Your task to perform on an android device: check the backup settings in the google photos Image 0: 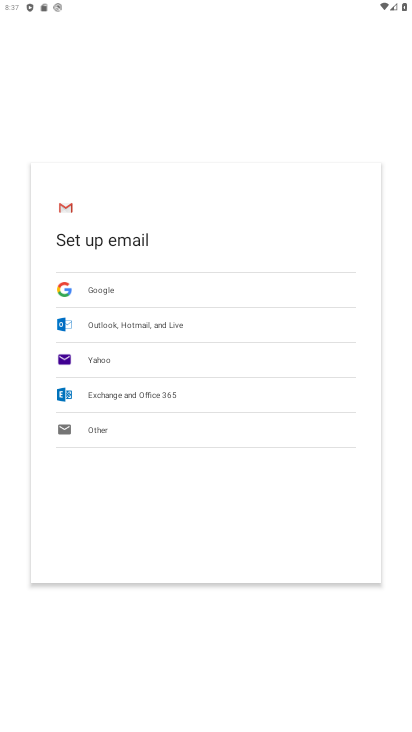
Step 0: press home button
Your task to perform on an android device: check the backup settings in the google photos Image 1: 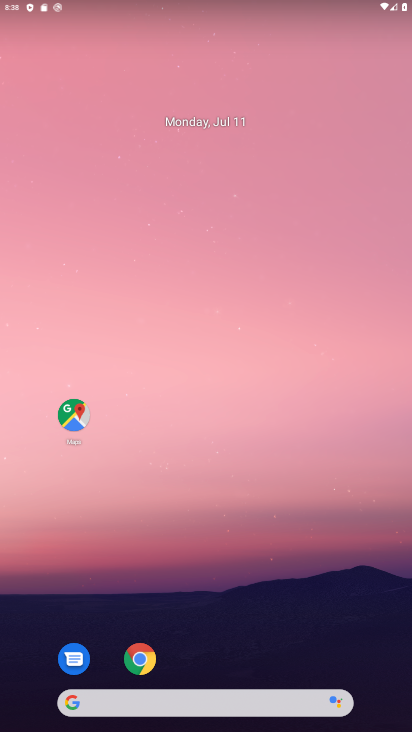
Step 1: drag from (19, 723) to (3, 634)
Your task to perform on an android device: check the backup settings in the google photos Image 2: 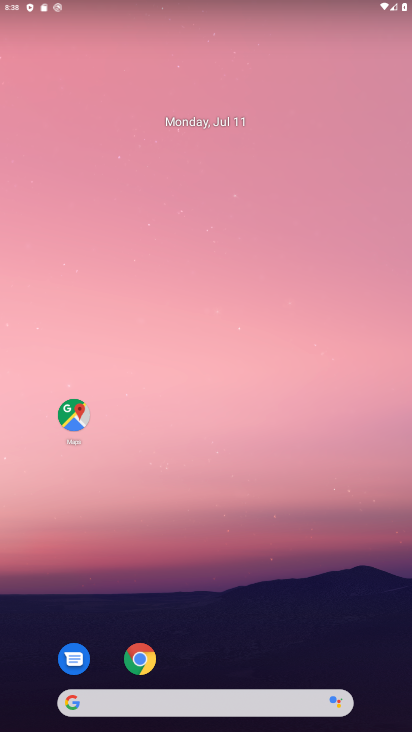
Step 2: drag from (9, 701) to (125, 258)
Your task to perform on an android device: check the backup settings in the google photos Image 3: 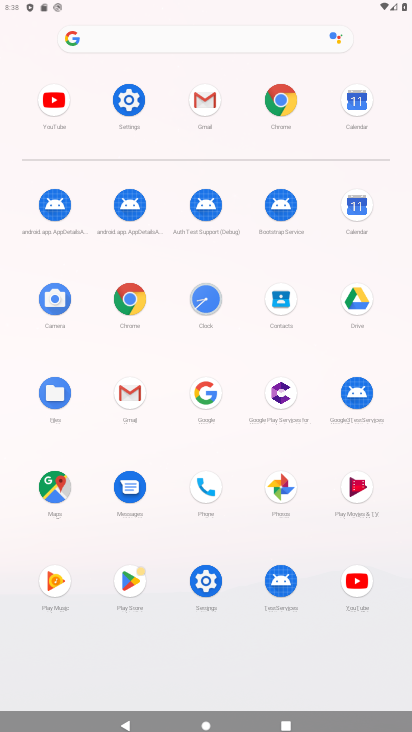
Step 3: click (270, 498)
Your task to perform on an android device: check the backup settings in the google photos Image 4: 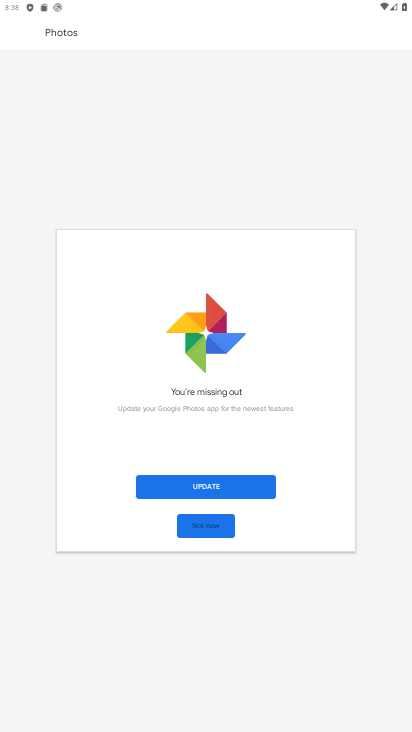
Step 4: click (182, 513)
Your task to perform on an android device: check the backup settings in the google photos Image 5: 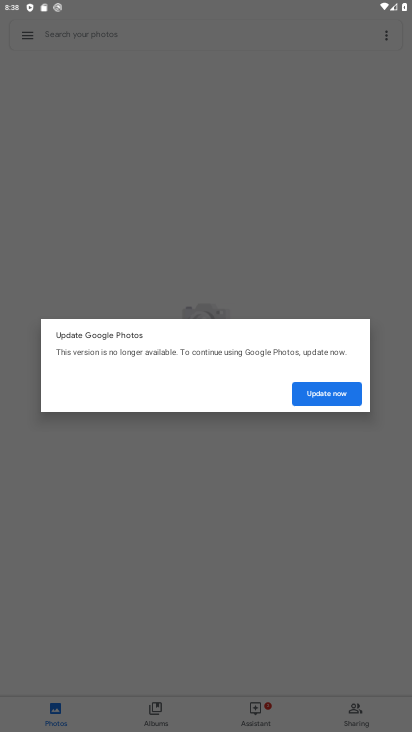
Step 5: click (312, 393)
Your task to perform on an android device: check the backup settings in the google photos Image 6: 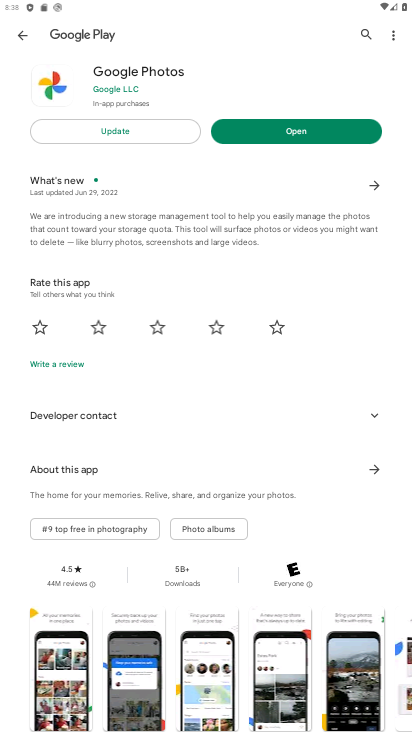
Step 6: click (292, 132)
Your task to perform on an android device: check the backup settings in the google photos Image 7: 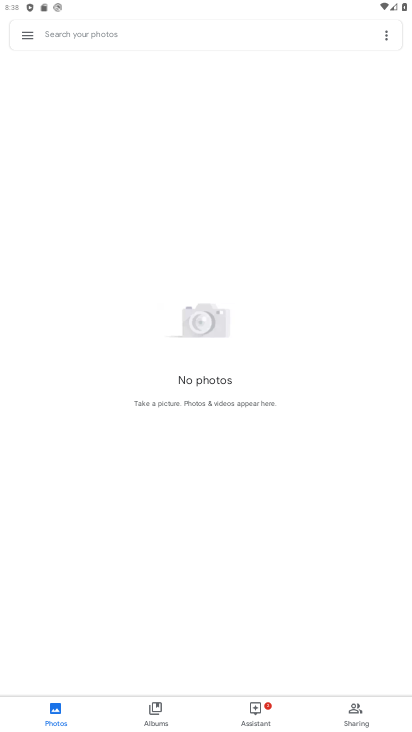
Step 7: click (30, 35)
Your task to perform on an android device: check the backup settings in the google photos Image 8: 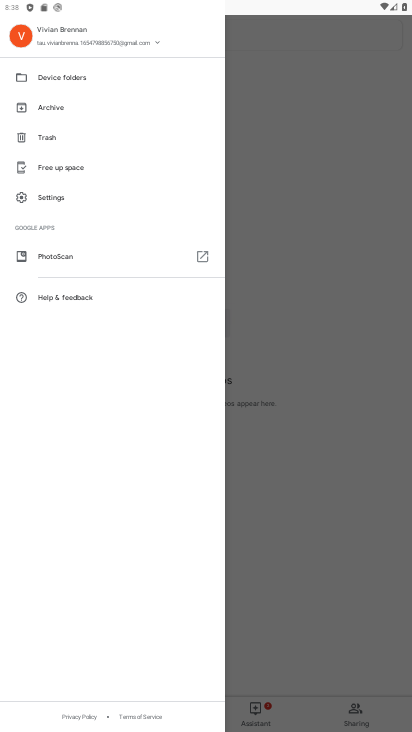
Step 8: click (65, 196)
Your task to perform on an android device: check the backup settings in the google photos Image 9: 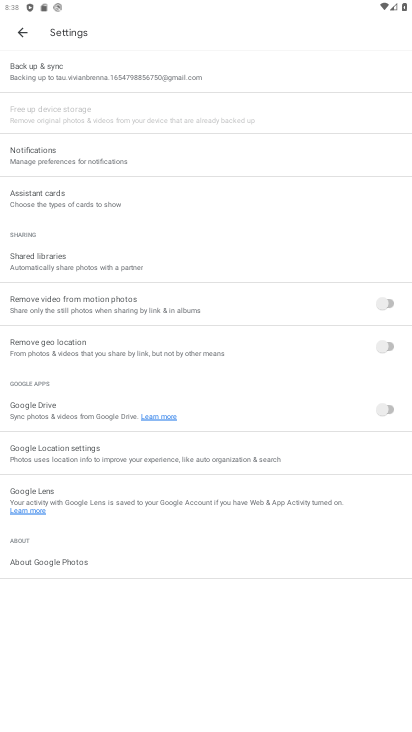
Step 9: click (67, 73)
Your task to perform on an android device: check the backup settings in the google photos Image 10: 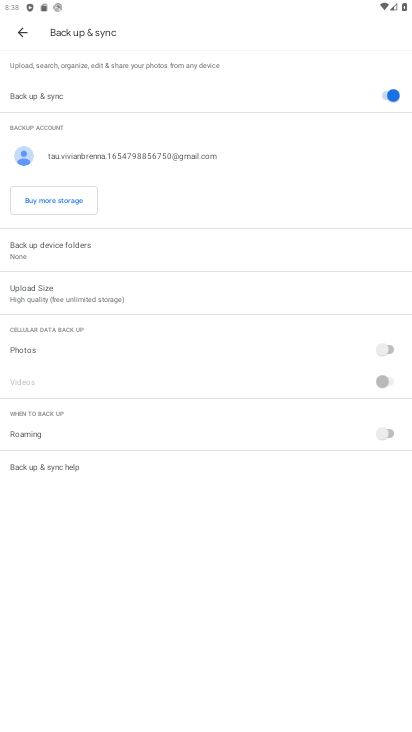
Step 10: task complete